Your task to perform on an android device: See recent photos Image 0: 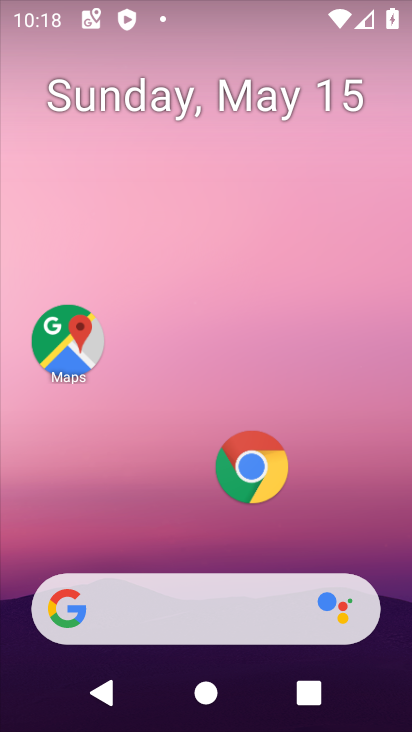
Step 0: drag from (214, 459) to (229, 241)
Your task to perform on an android device: See recent photos Image 1: 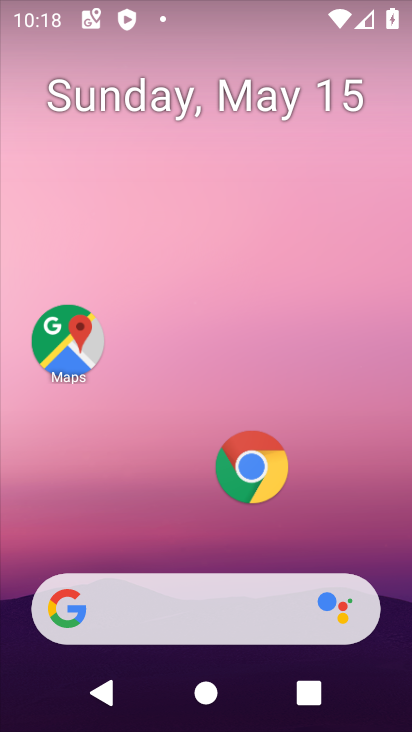
Step 1: drag from (191, 528) to (241, 70)
Your task to perform on an android device: See recent photos Image 2: 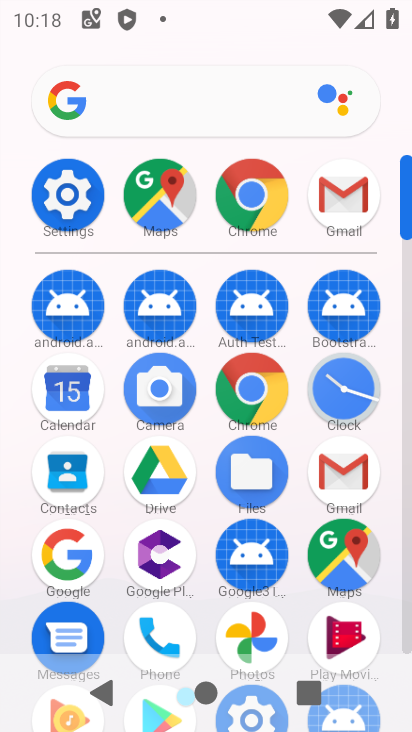
Step 2: drag from (195, 501) to (196, 233)
Your task to perform on an android device: See recent photos Image 3: 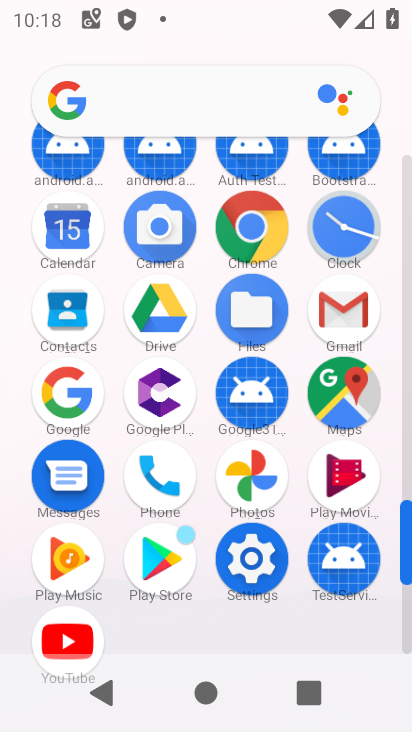
Step 3: click (236, 471)
Your task to perform on an android device: See recent photos Image 4: 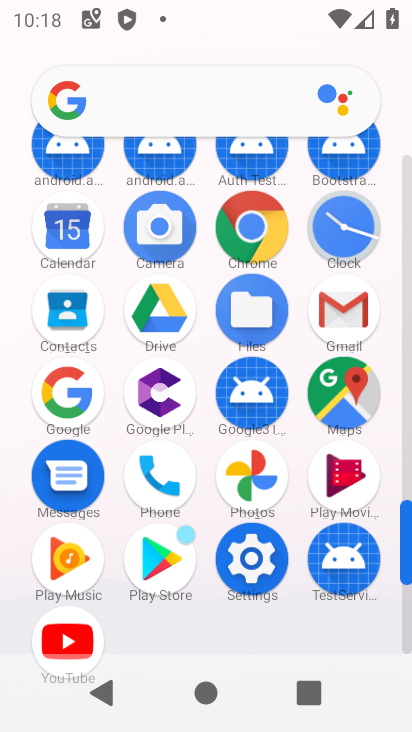
Step 4: click (236, 471)
Your task to perform on an android device: See recent photos Image 5: 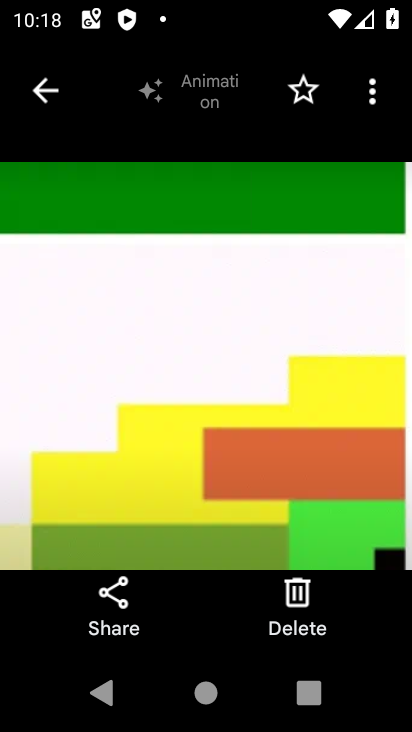
Step 5: click (34, 110)
Your task to perform on an android device: See recent photos Image 6: 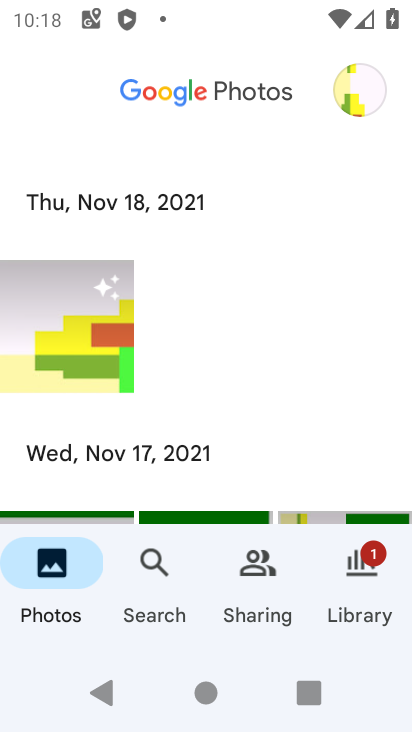
Step 6: drag from (112, 397) to (175, 210)
Your task to perform on an android device: See recent photos Image 7: 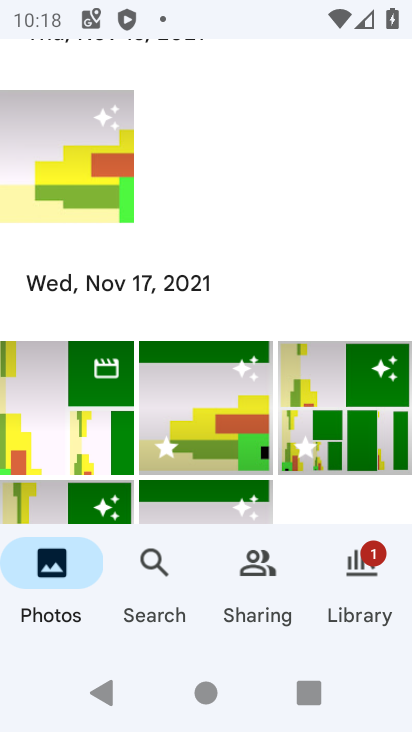
Step 7: click (89, 175)
Your task to perform on an android device: See recent photos Image 8: 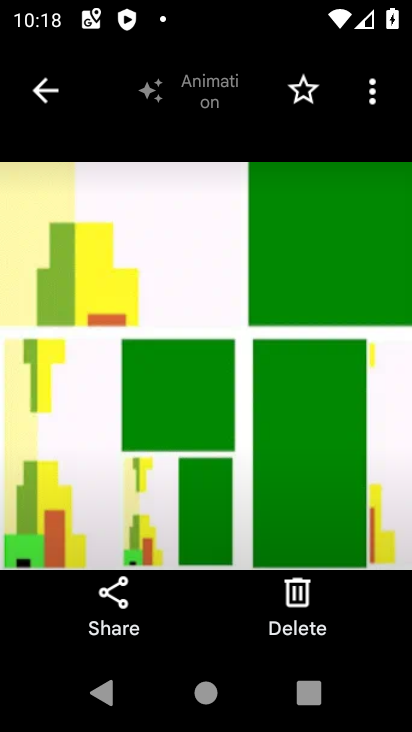
Step 8: task complete